Your task to perform on an android device: What's the price of the Sony TV? Image 0: 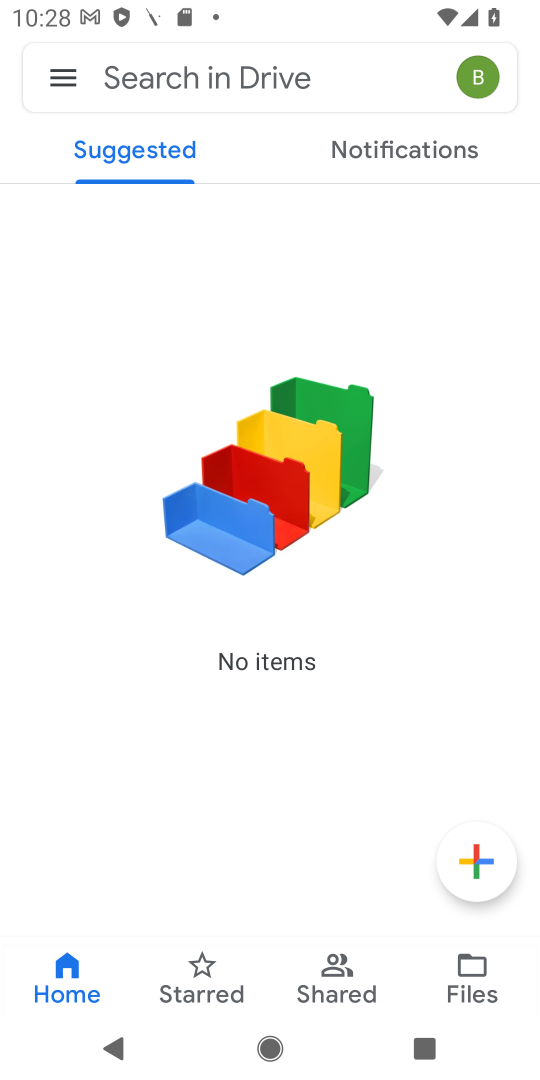
Step 0: press home button
Your task to perform on an android device: What's the price of the Sony TV? Image 1: 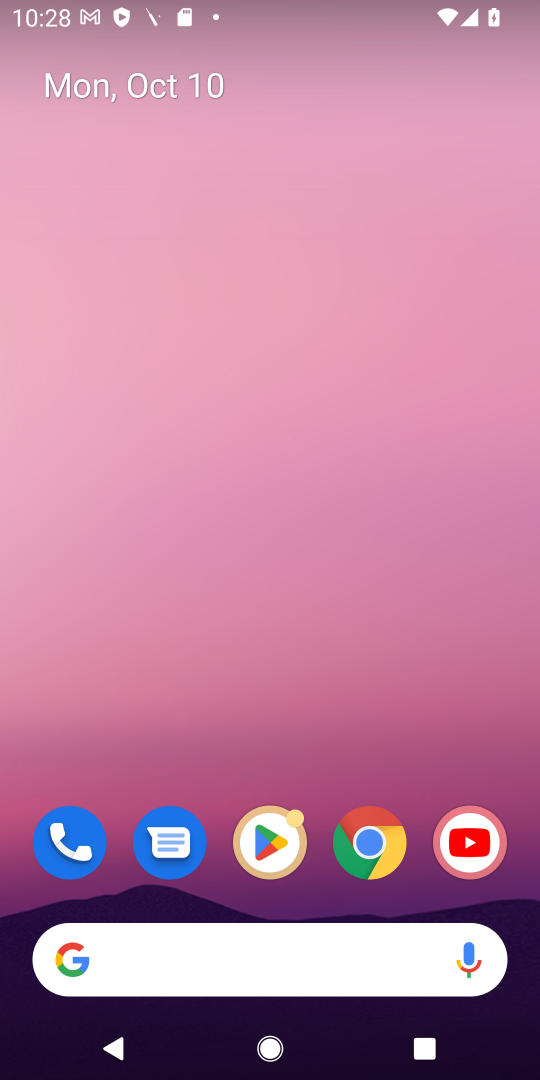
Step 1: click (260, 950)
Your task to perform on an android device: What's the price of the Sony TV? Image 2: 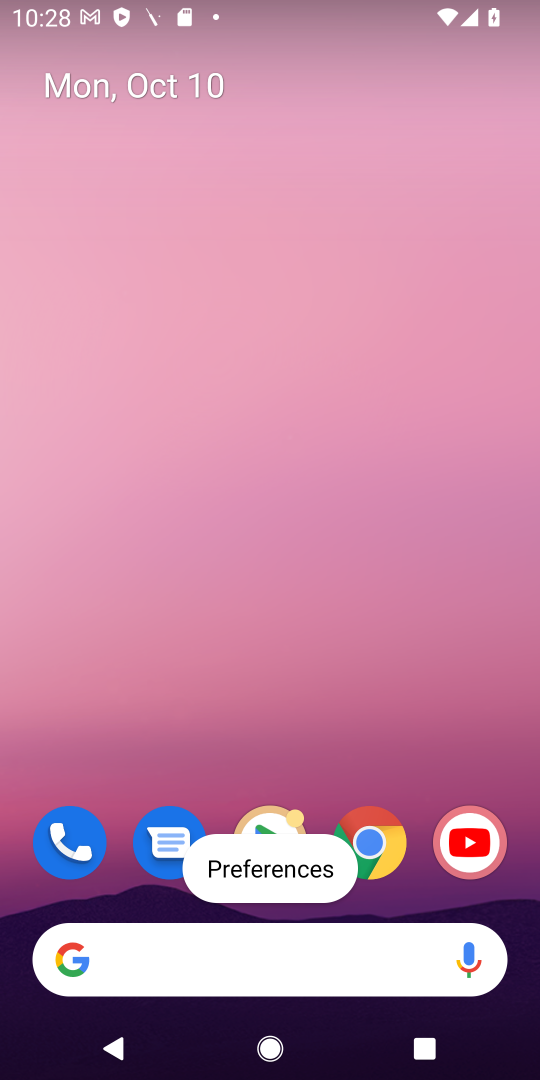
Step 2: click (181, 959)
Your task to perform on an android device: What's the price of the Sony TV? Image 3: 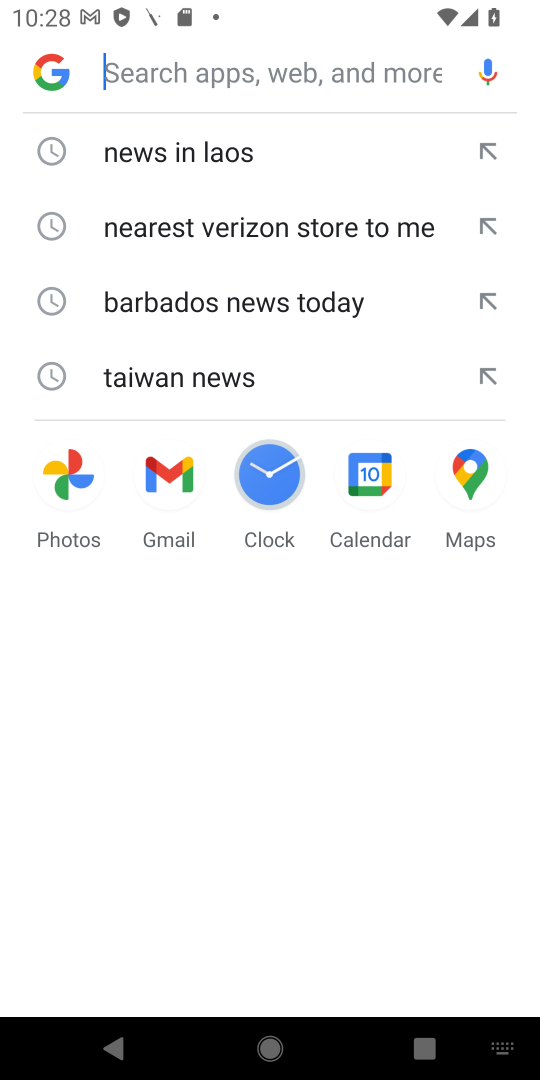
Step 3: click (199, 52)
Your task to perform on an android device: What's the price of the Sony TV? Image 4: 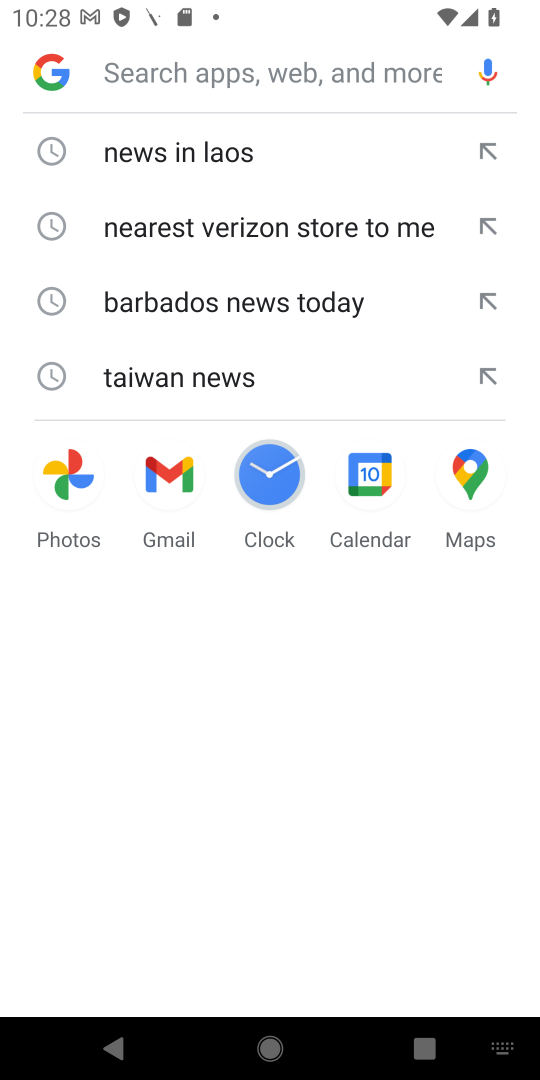
Step 4: type "price of sony tv"
Your task to perform on an android device: What's the price of the Sony TV? Image 5: 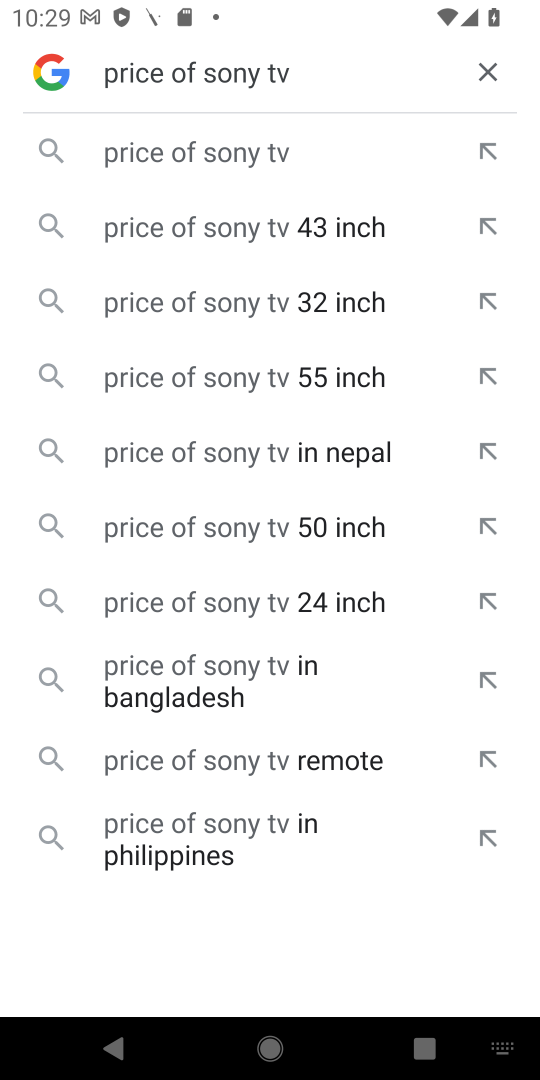
Step 5: click (184, 164)
Your task to perform on an android device: What's the price of the Sony TV? Image 6: 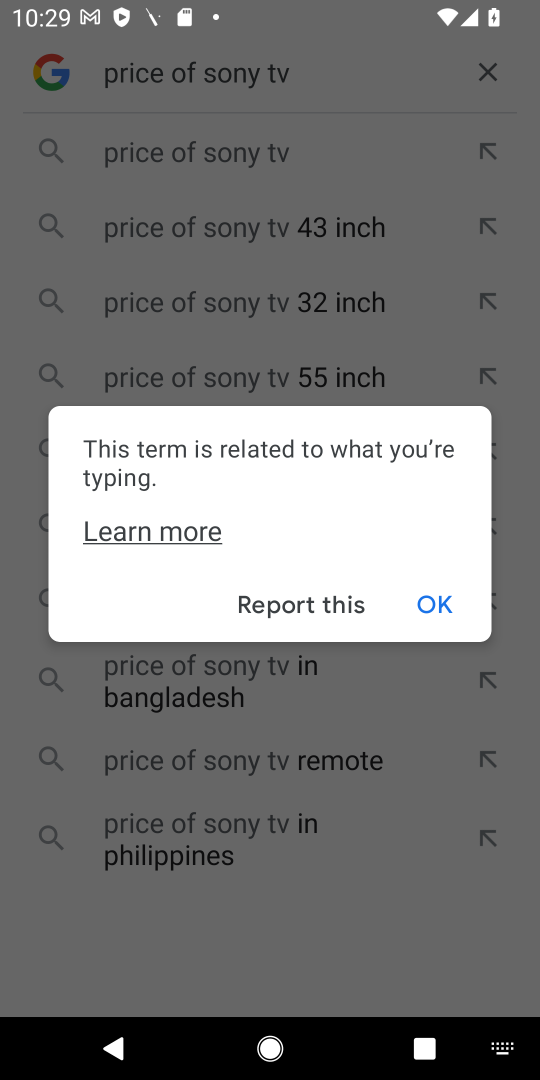
Step 6: click (426, 608)
Your task to perform on an android device: What's the price of the Sony TV? Image 7: 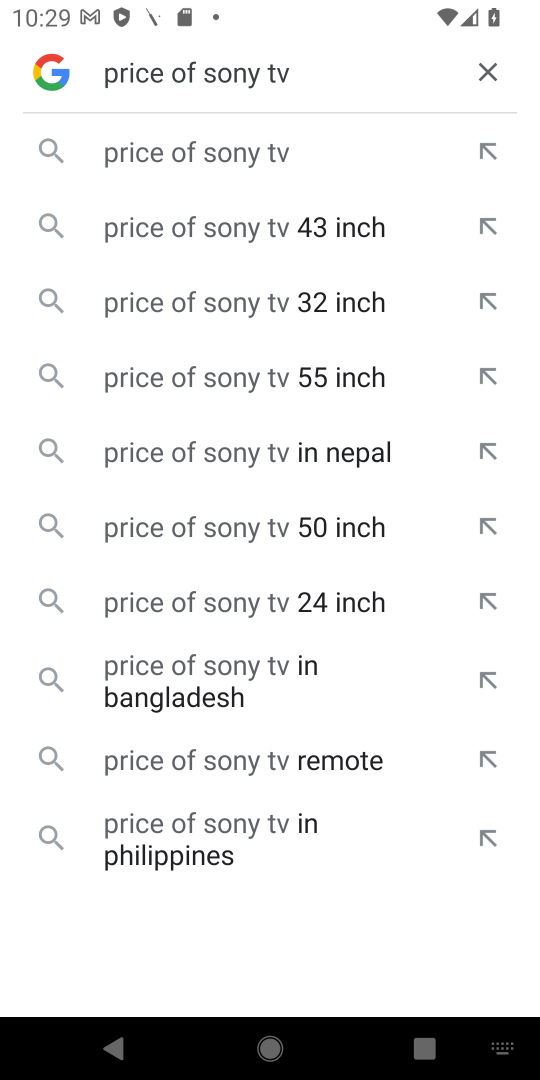
Step 7: click (164, 159)
Your task to perform on an android device: What's the price of the Sony TV? Image 8: 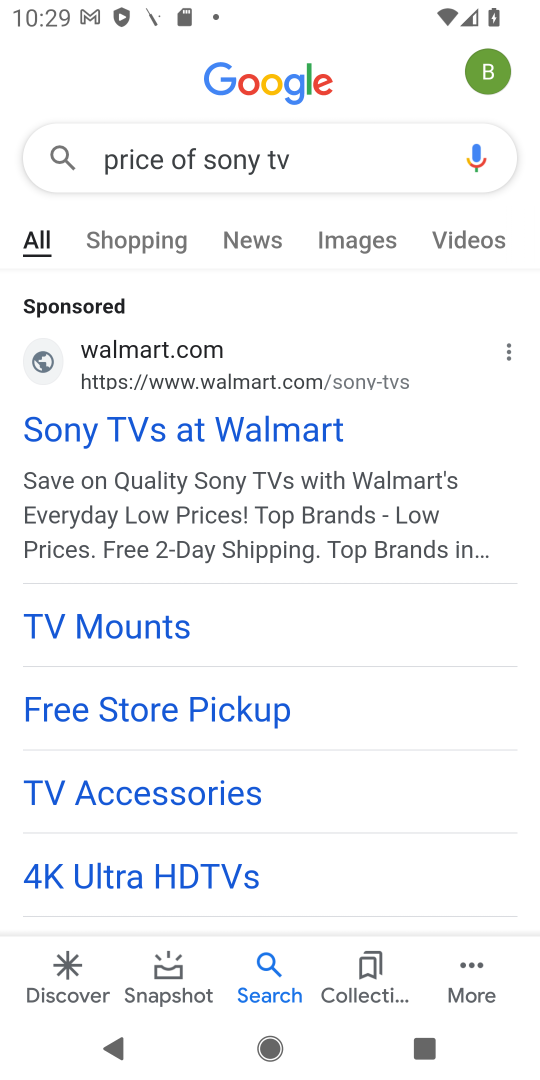
Step 8: drag from (239, 628) to (254, 374)
Your task to perform on an android device: What's the price of the Sony TV? Image 9: 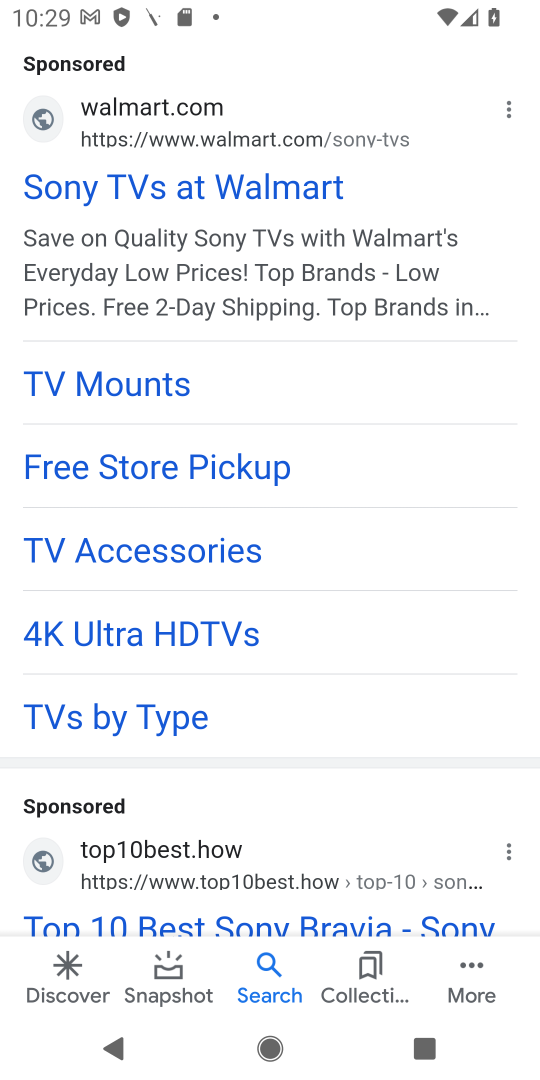
Step 9: drag from (254, 374) to (258, 753)
Your task to perform on an android device: What's the price of the Sony TV? Image 10: 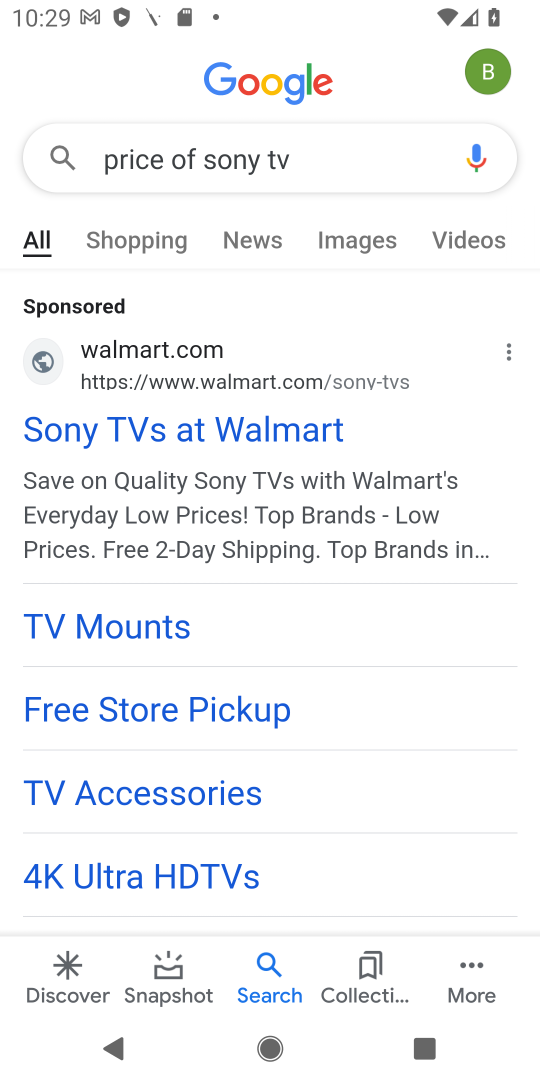
Step 10: click (137, 255)
Your task to perform on an android device: What's the price of the Sony TV? Image 11: 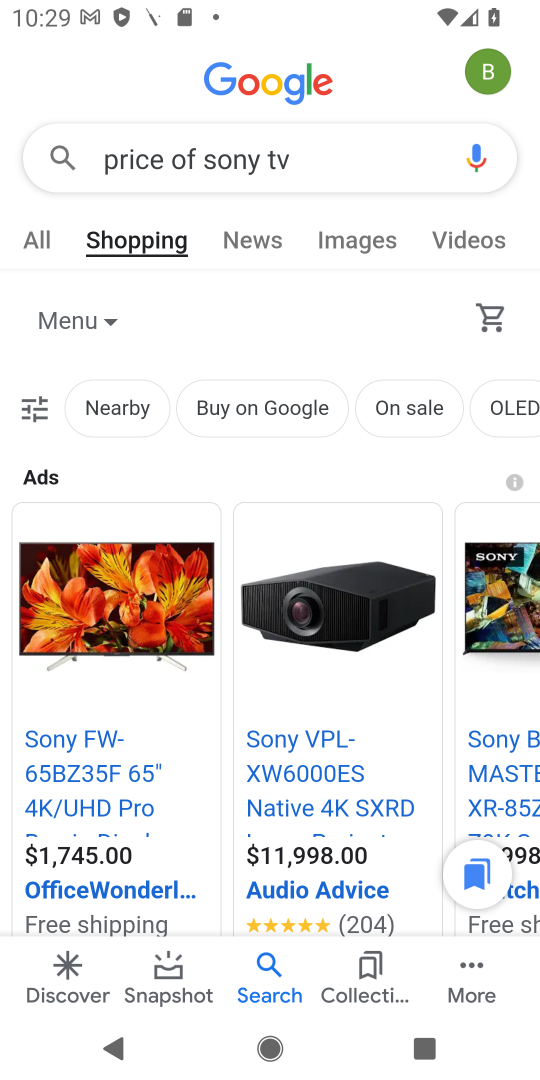
Step 11: task complete